Your task to perform on an android device: Show me recent news Image 0: 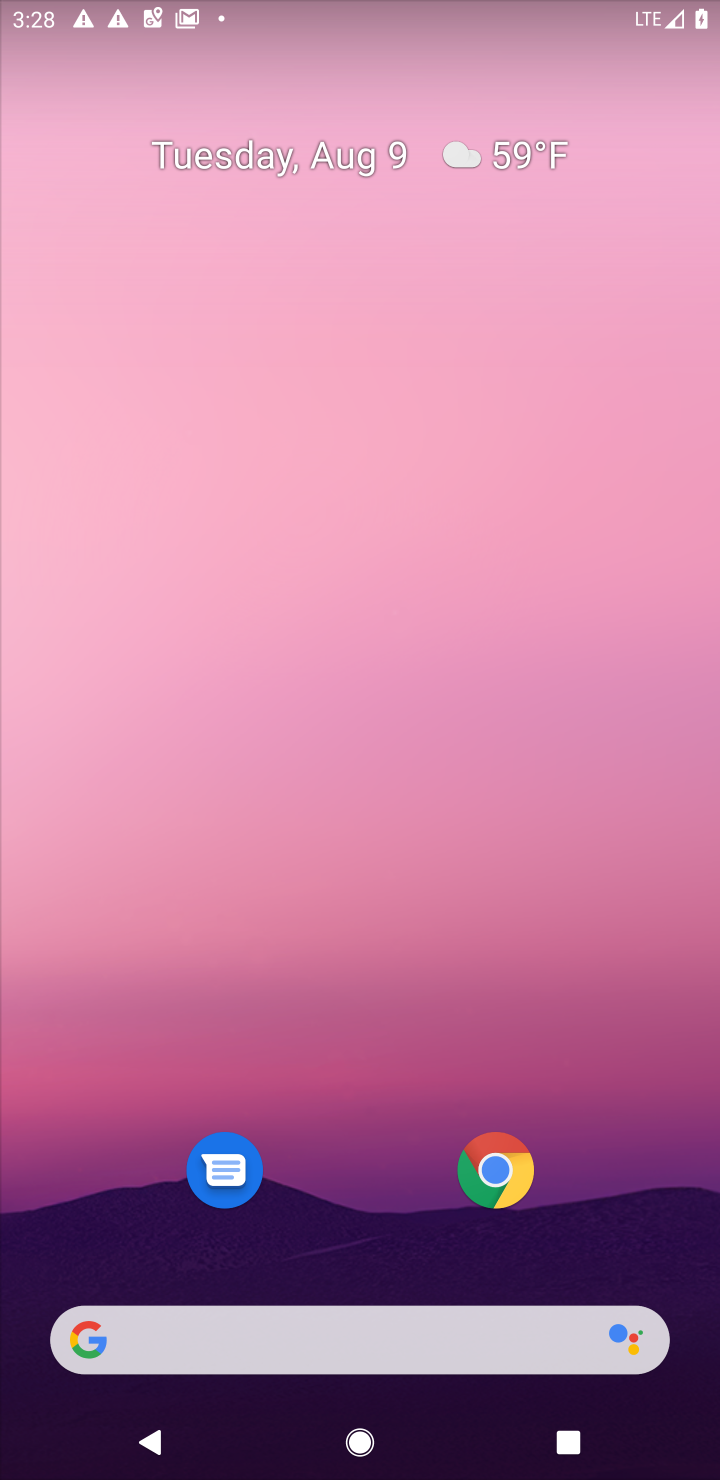
Step 0: click (85, 1364)
Your task to perform on an android device: Show me recent news Image 1: 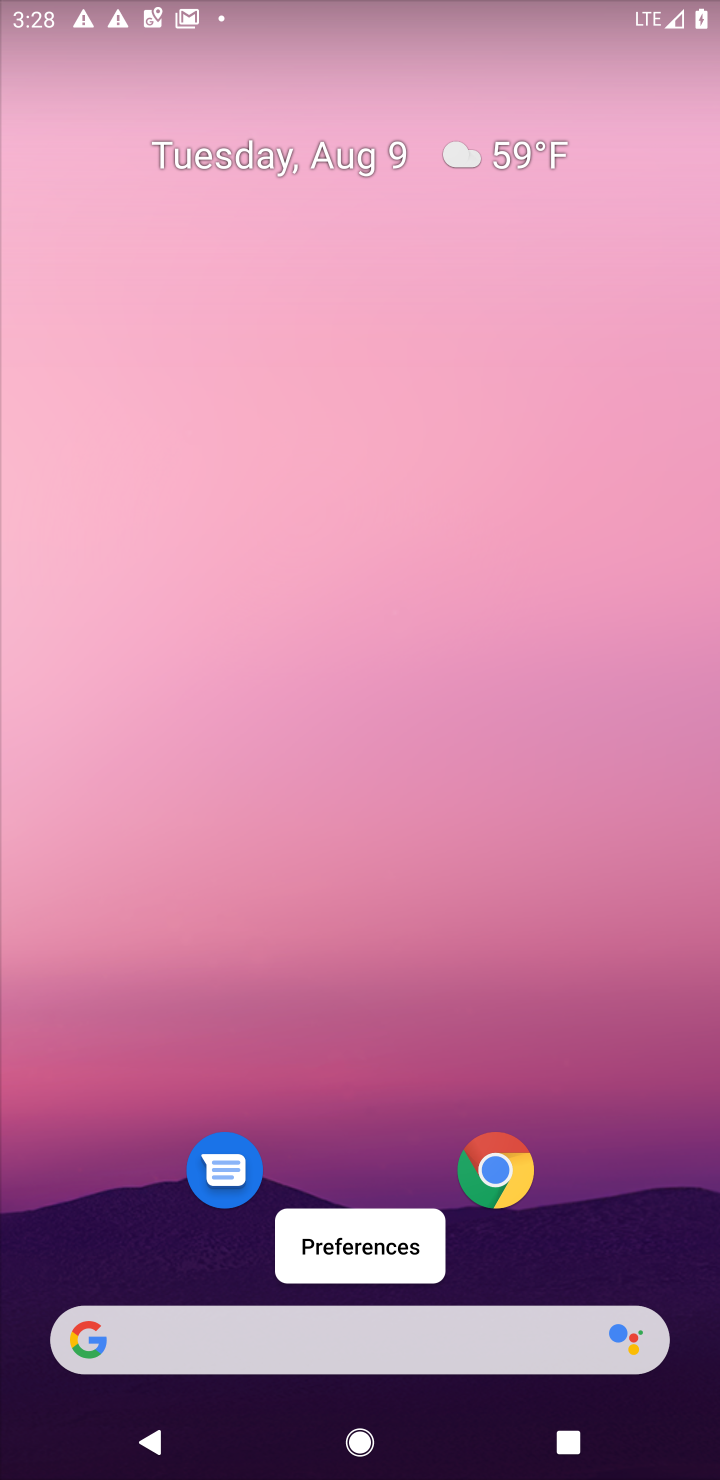
Step 1: click (78, 1333)
Your task to perform on an android device: Show me recent news Image 2: 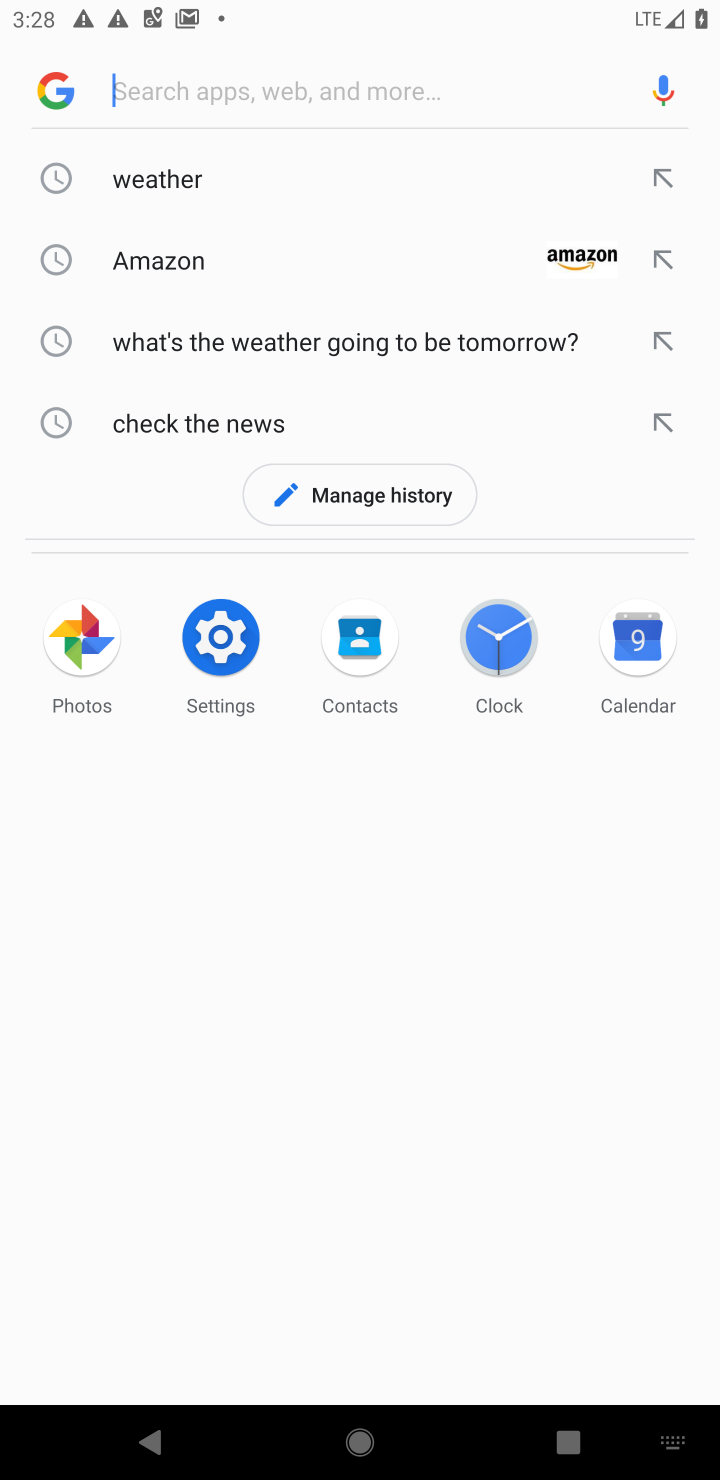
Step 2: press enter
Your task to perform on an android device: Show me recent news Image 3: 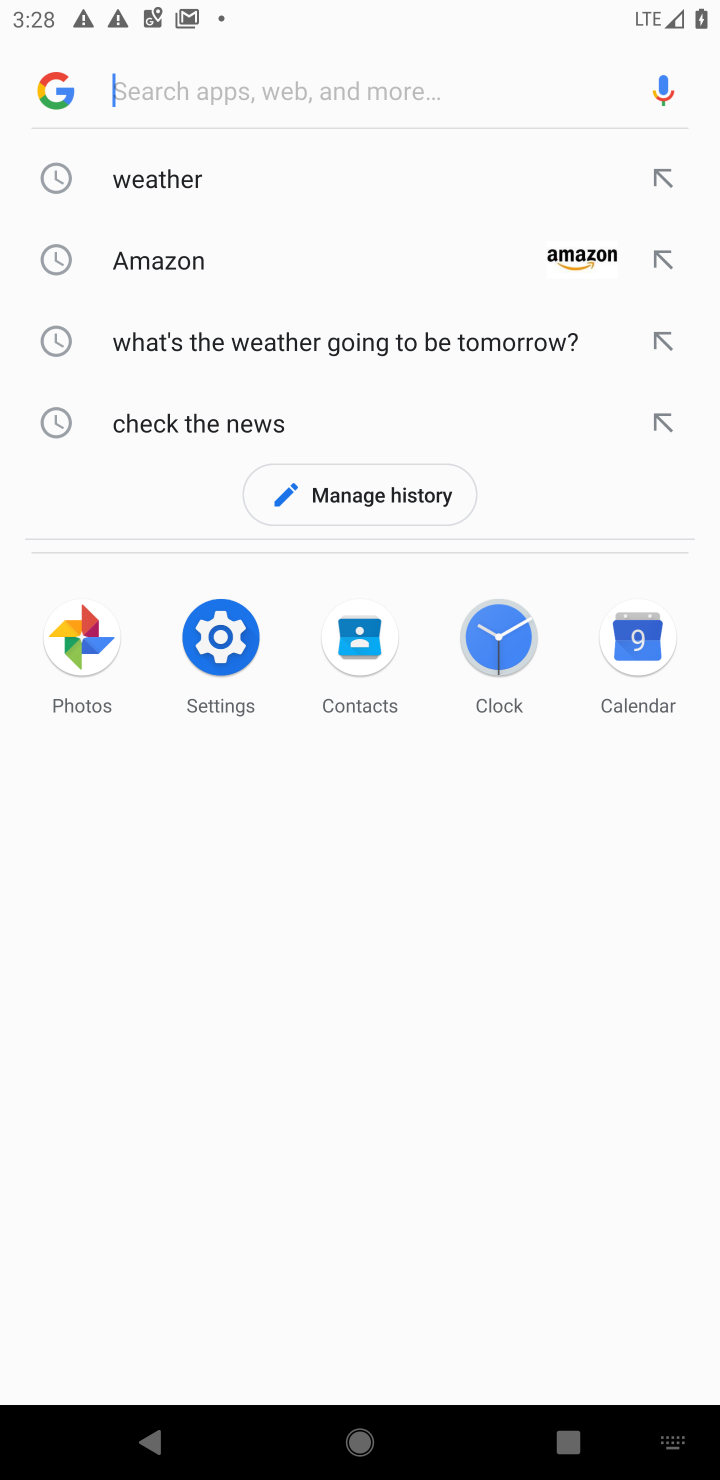
Step 3: type " recent news"
Your task to perform on an android device: Show me recent news Image 4: 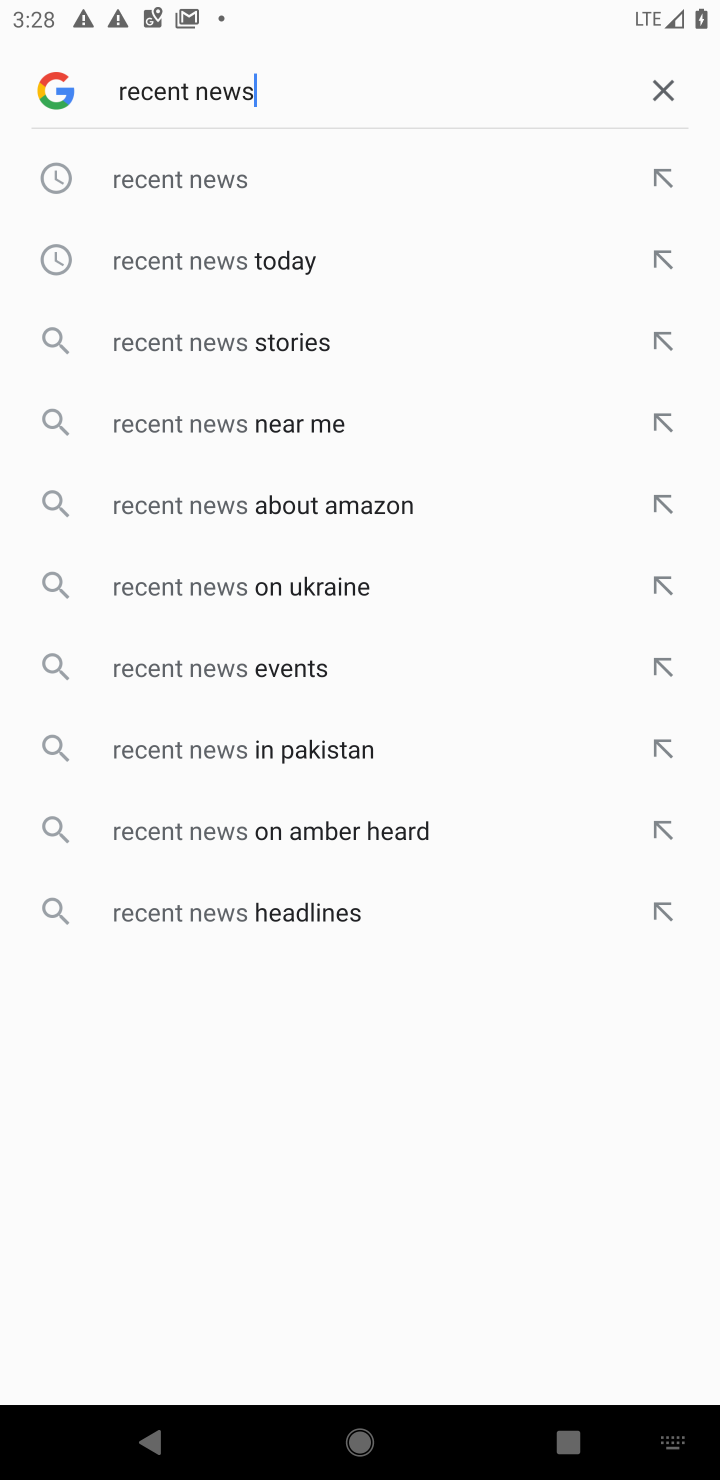
Step 4: press enter
Your task to perform on an android device: Show me recent news Image 5: 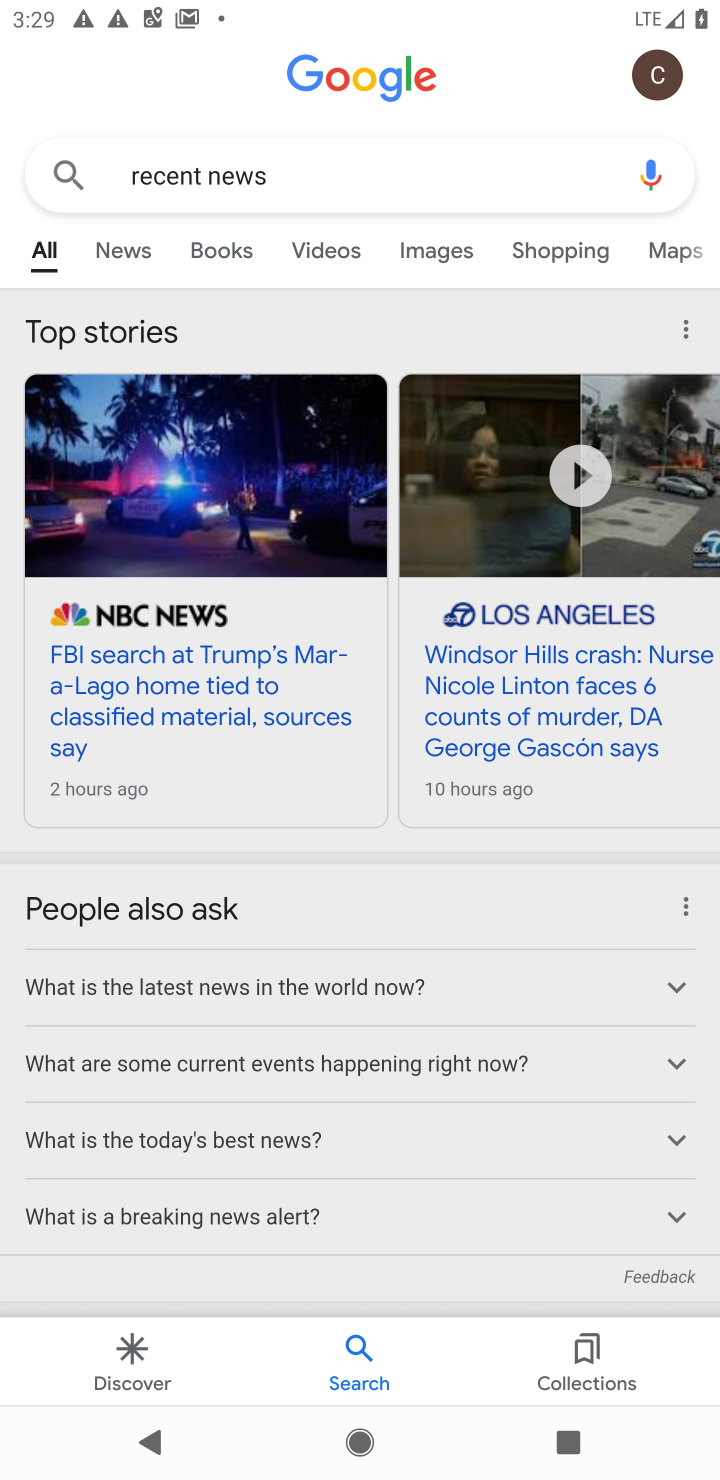
Step 5: task complete